Your task to perform on an android device: see creations saved in the google photos Image 0: 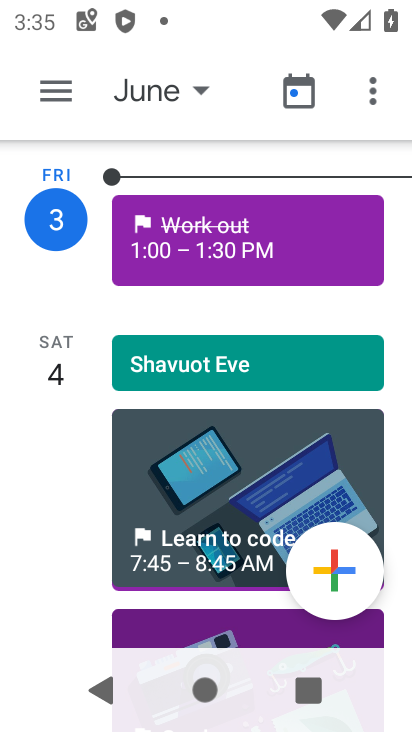
Step 0: task complete